Your task to perform on an android device: Show me the alarms in the clock app Image 0: 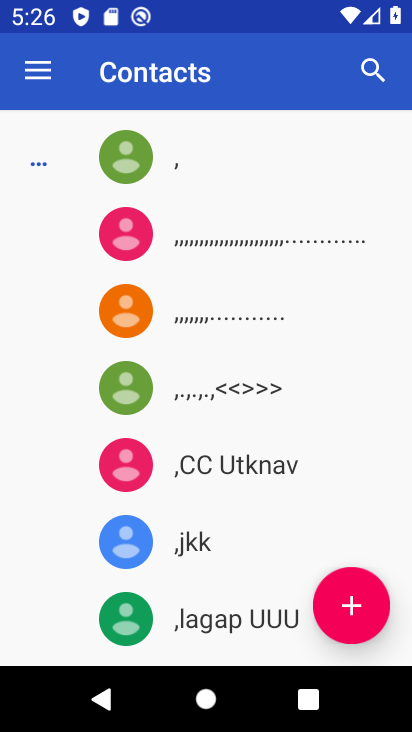
Step 0: press home button
Your task to perform on an android device: Show me the alarms in the clock app Image 1: 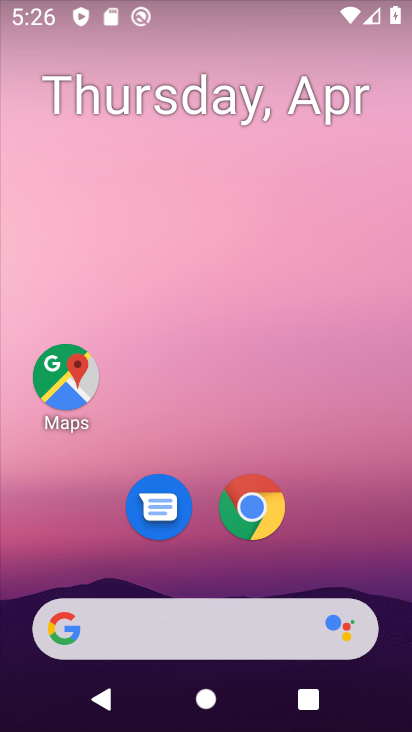
Step 1: drag from (327, 517) to (383, 110)
Your task to perform on an android device: Show me the alarms in the clock app Image 2: 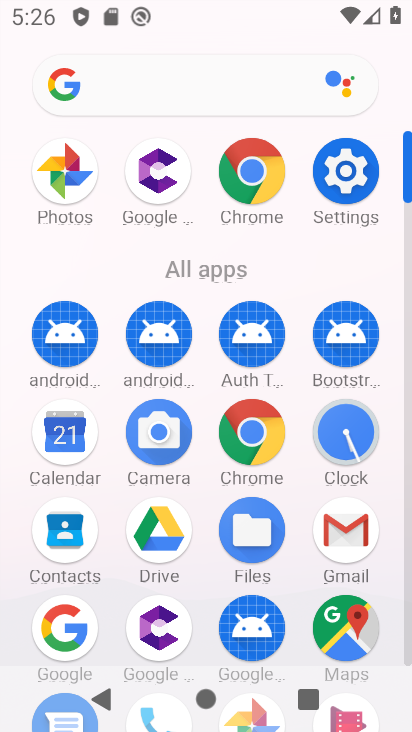
Step 2: click (347, 431)
Your task to perform on an android device: Show me the alarms in the clock app Image 3: 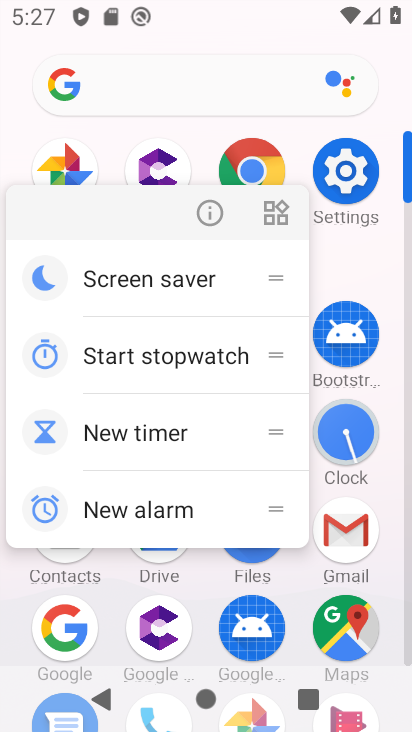
Step 3: click (367, 264)
Your task to perform on an android device: Show me the alarms in the clock app Image 4: 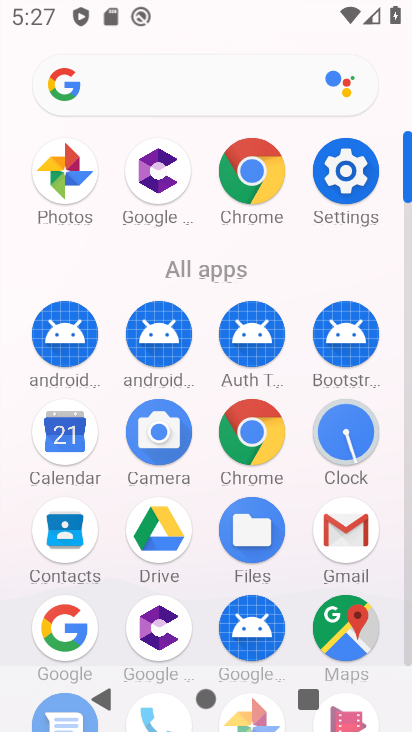
Step 4: click (352, 417)
Your task to perform on an android device: Show me the alarms in the clock app Image 5: 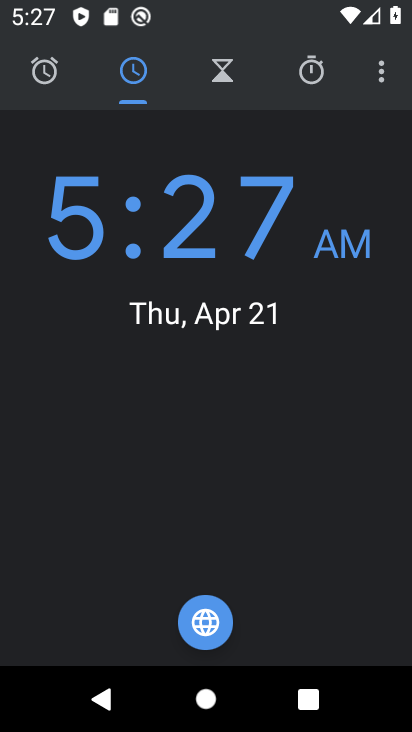
Step 5: click (55, 70)
Your task to perform on an android device: Show me the alarms in the clock app Image 6: 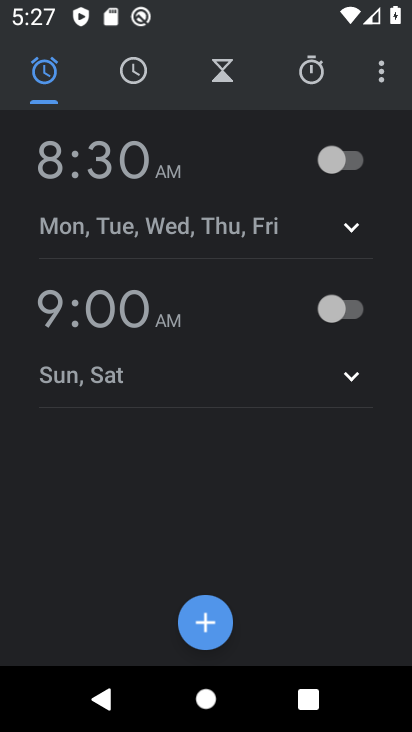
Step 6: task complete